Your task to perform on an android device: Open my contact list Image 0: 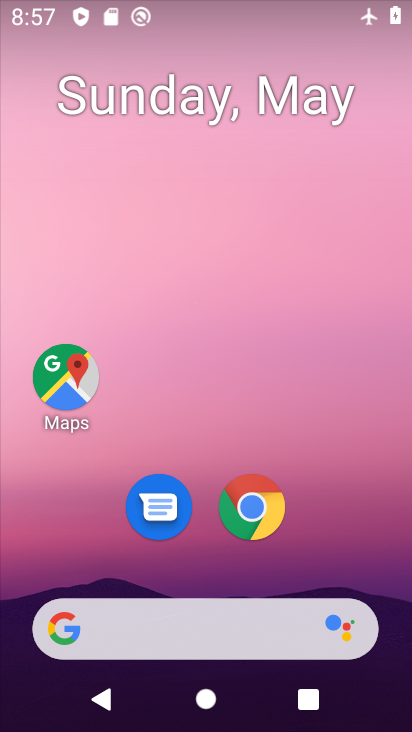
Step 0: drag from (197, 566) to (223, 33)
Your task to perform on an android device: Open my contact list Image 1: 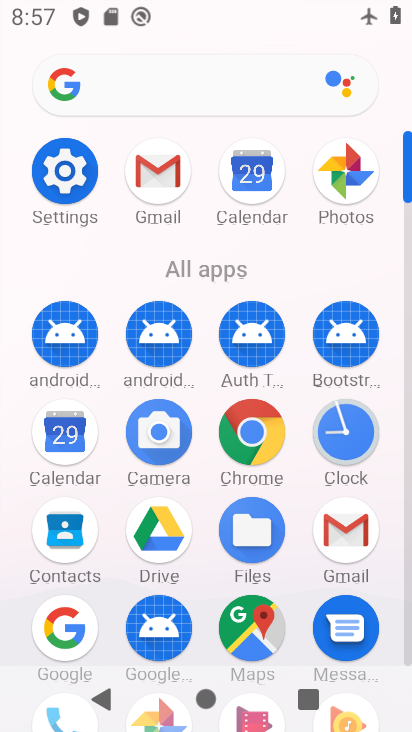
Step 1: click (76, 550)
Your task to perform on an android device: Open my contact list Image 2: 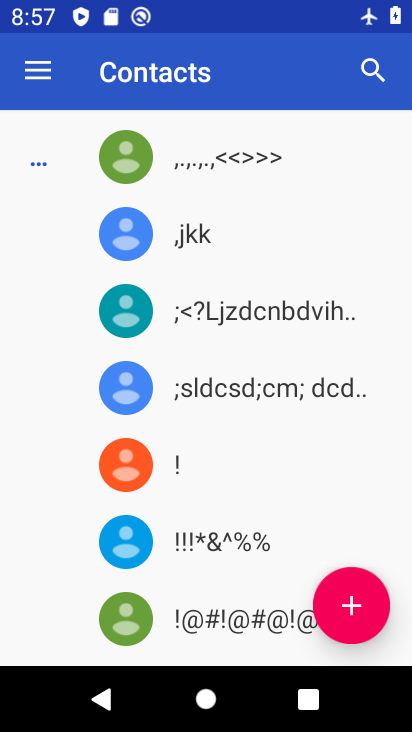
Step 2: task complete